Your task to perform on an android device: What's the latest news in astronomy? Image 0: 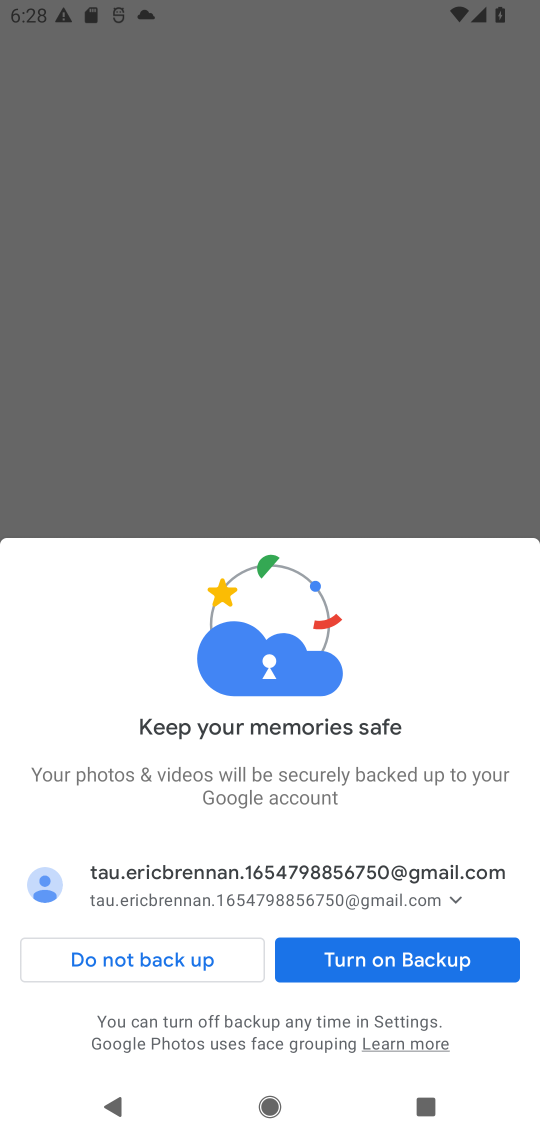
Step 0: press home button
Your task to perform on an android device: What's the latest news in astronomy? Image 1: 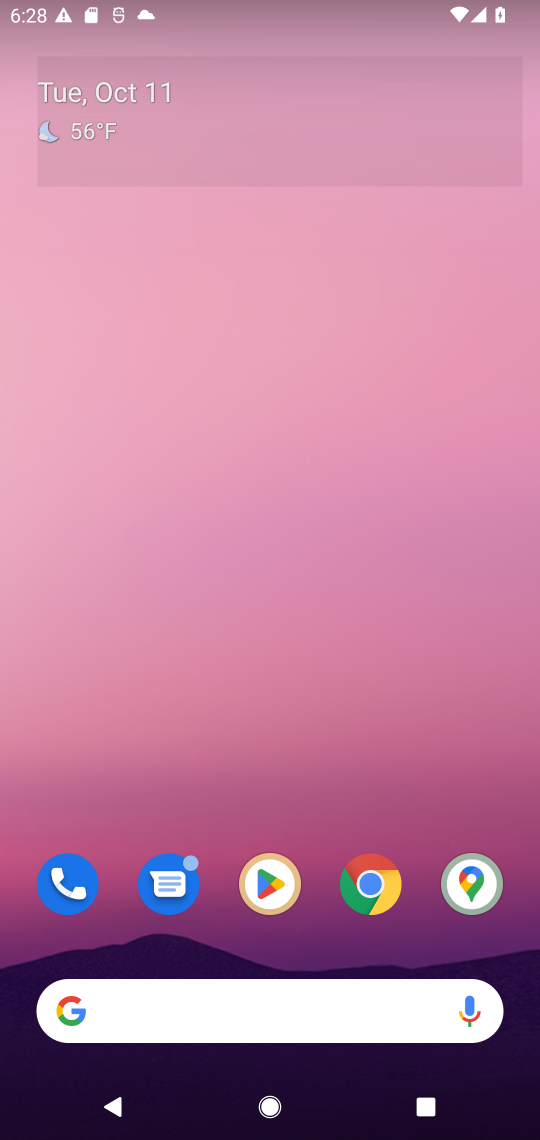
Step 1: drag from (315, 964) to (336, 242)
Your task to perform on an android device: What's the latest news in astronomy? Image 2: 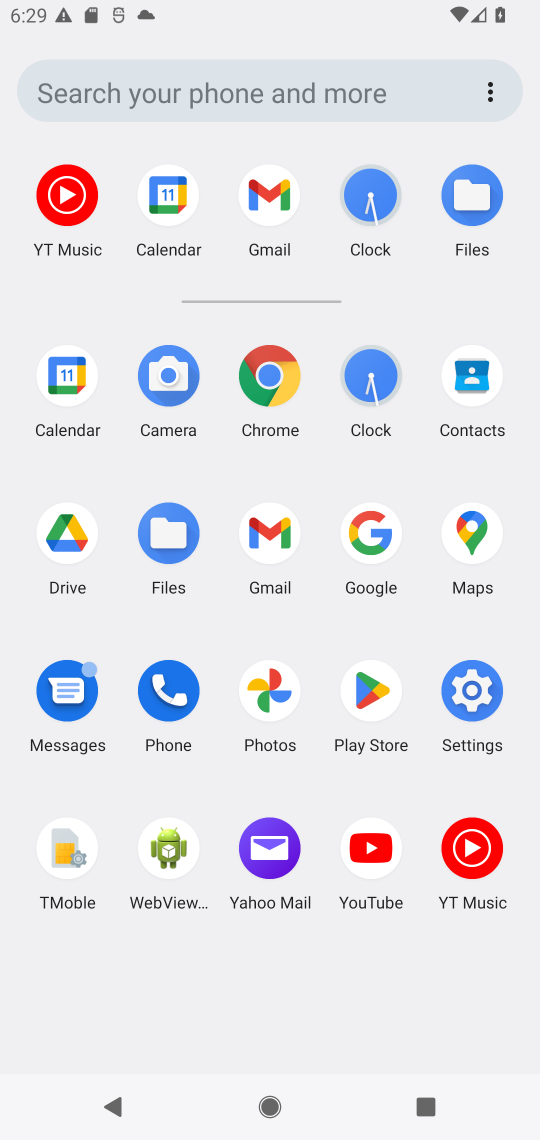
Step 2: click (372, 533)
Your task to perform on an android device: What's the latest news in astronomy? Image 3: 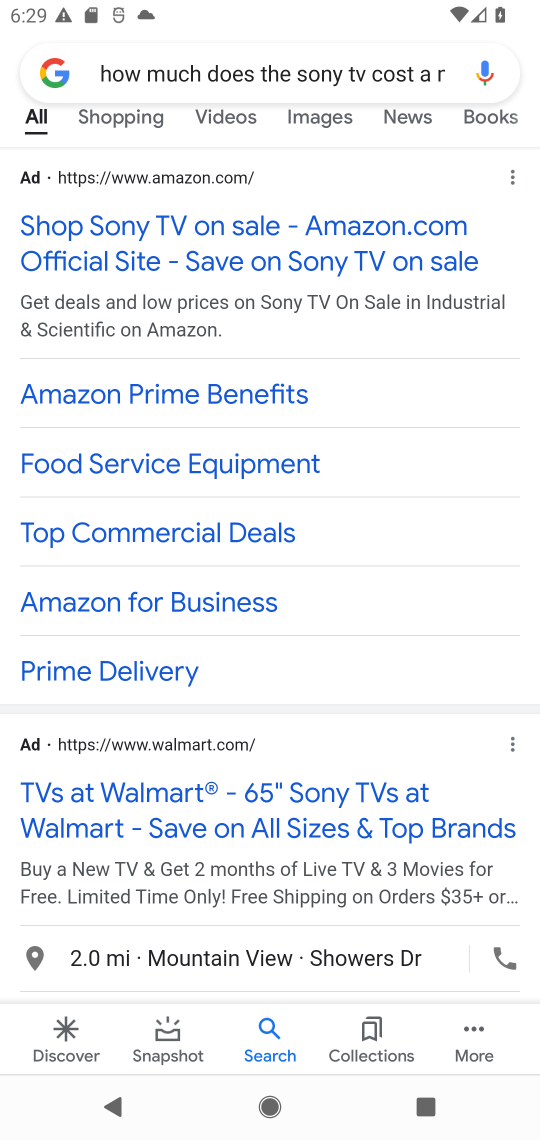
Step 3: drag from (256, 177) to (316, 701)
Your task to perform on an android device: What's the latest news in astronomy? Image 4: 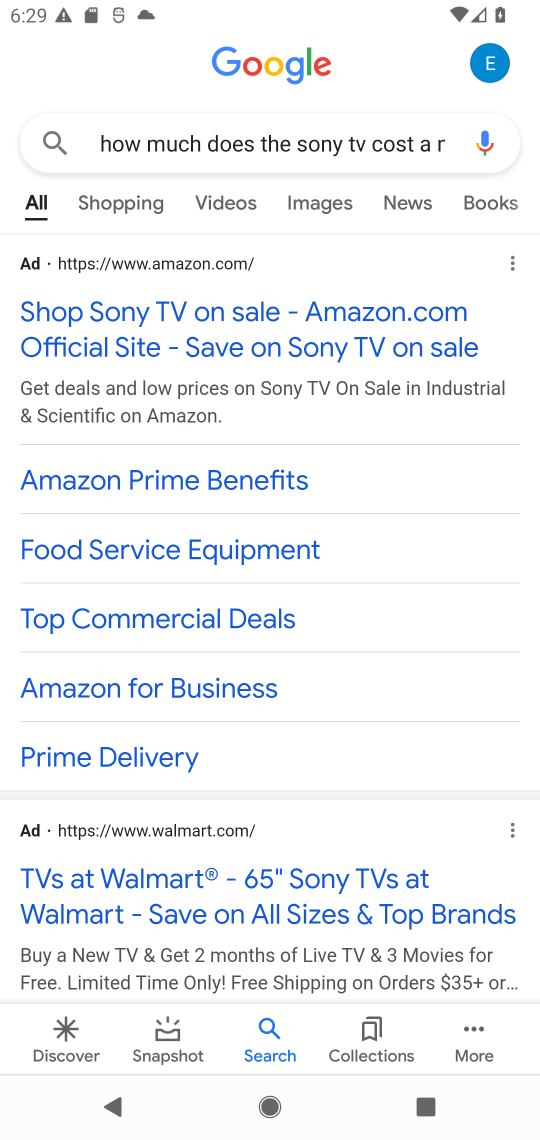
Step 4: click (268, 146)
Your task to perform on an android device: What's the latest news in astronomy? Image 5: 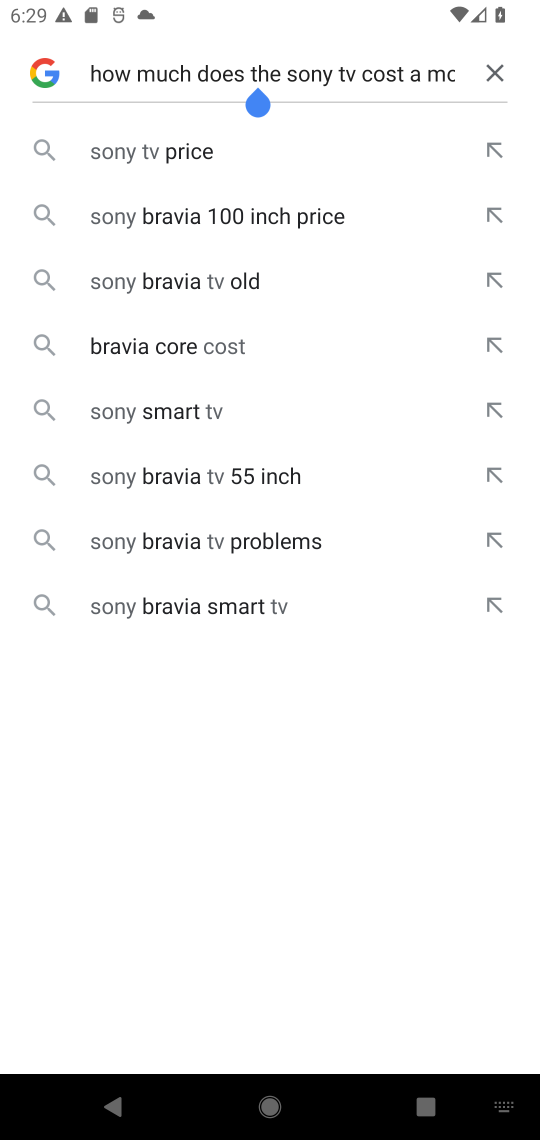
Step 5: click (491, 62)
Your task to perform on an android device: What's the latest news in astronomy? Image 6: 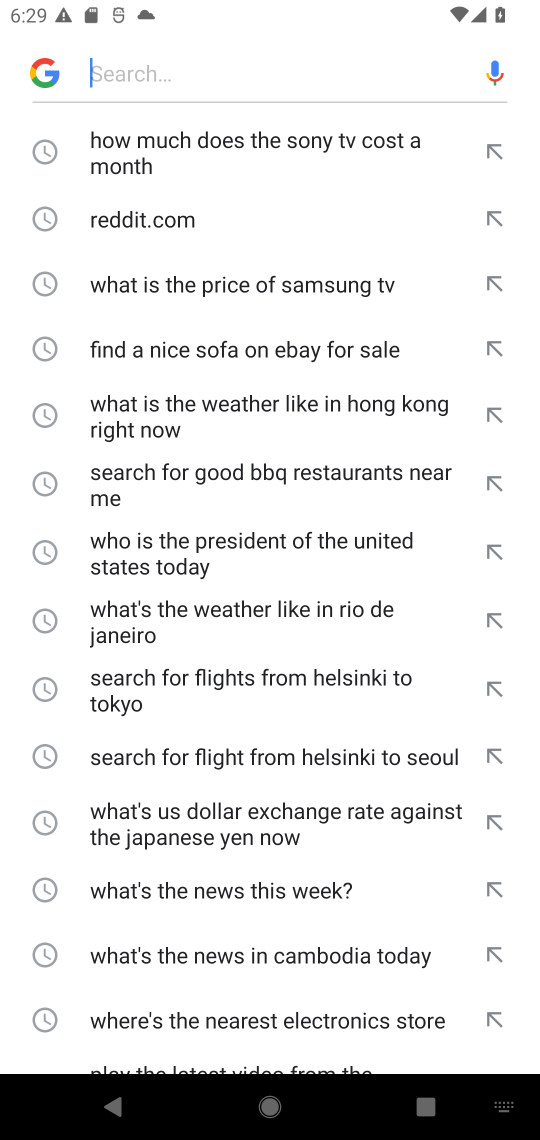
Step 6: type "What's the latest news in astronomy?"
Your task to perform on an android device: What's the latest news in astronomy? Image 7: 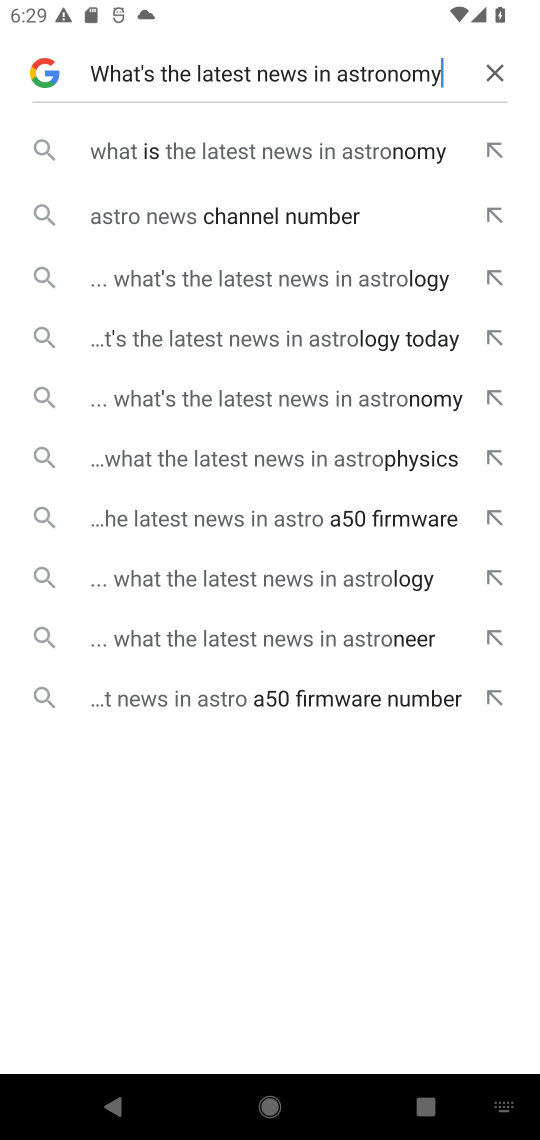
Step 7: type ""
Your task to perform on an android device: What's the latest news in astronomy? Image 8: 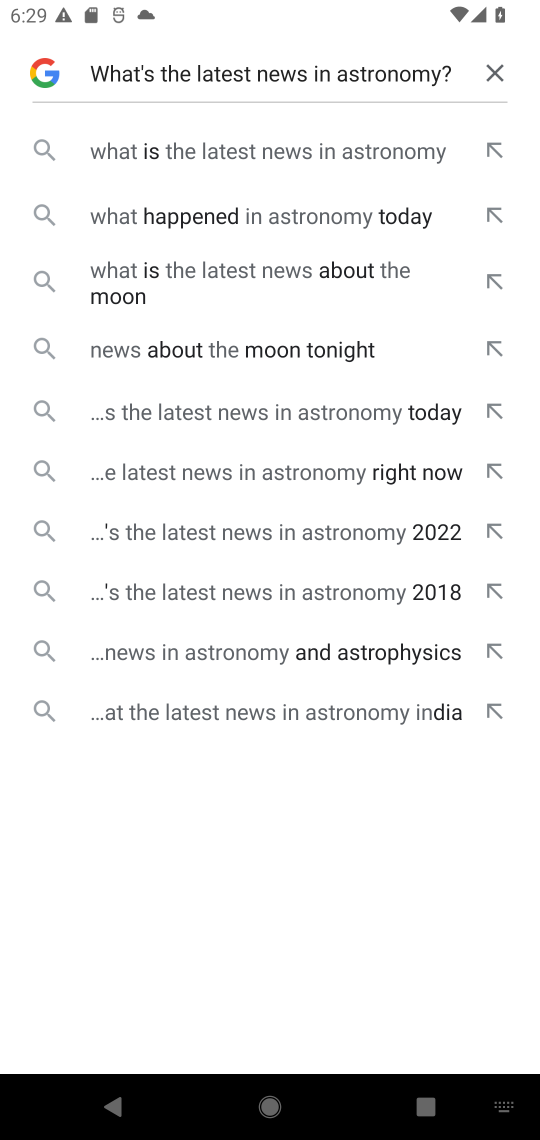
Step 8: click (239, 156)
Your task to perform on an android device: What's the latest news in astronomy? Image 9: 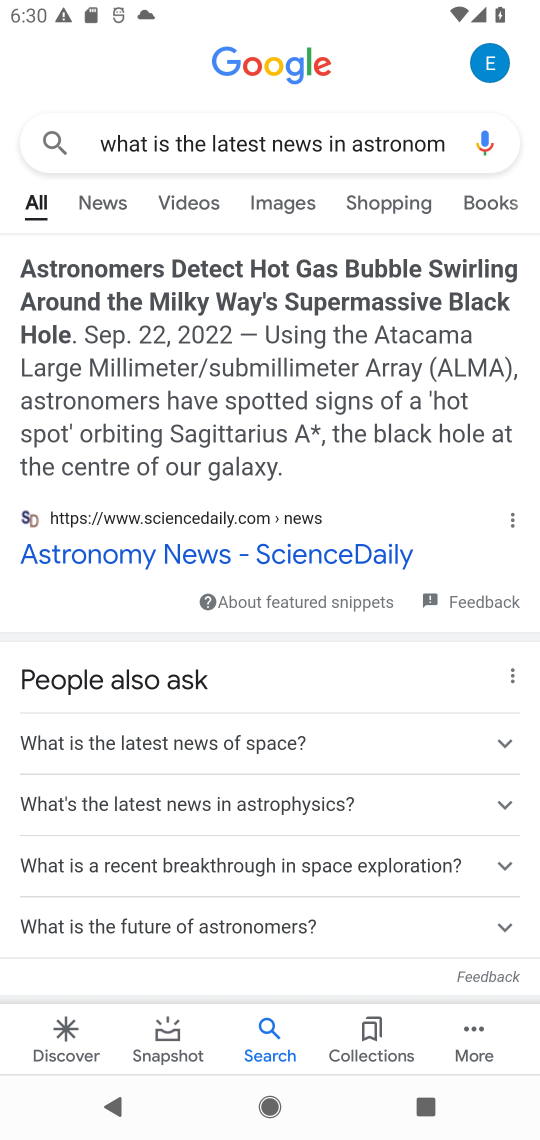
Step 9: task complete